Your task to perform on an android device: Open wifi settings Image 0: 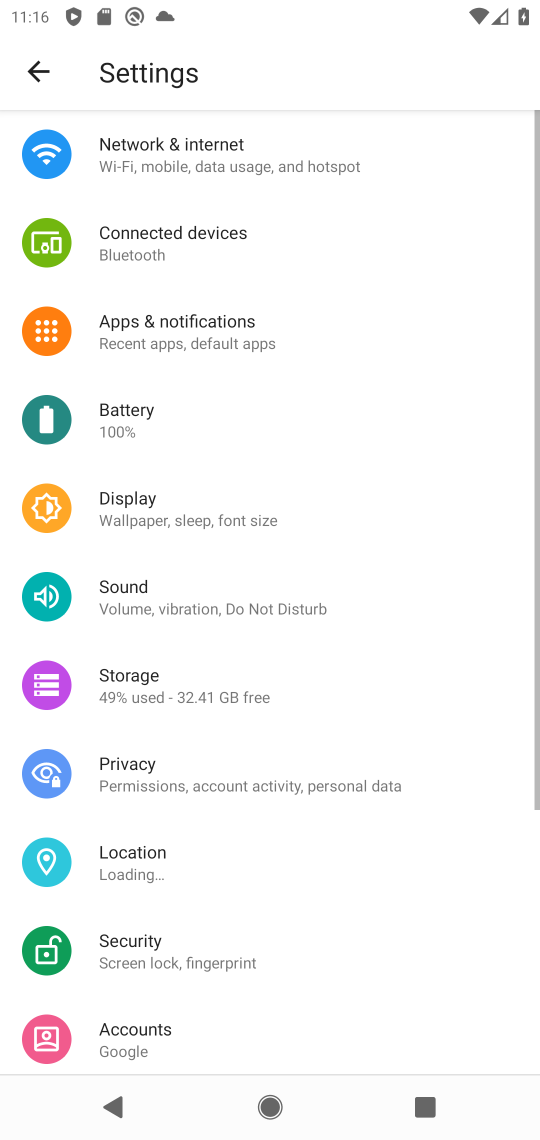
Step 0: press home button
Your task to perform on an android device: Open wifi settings Image 1: 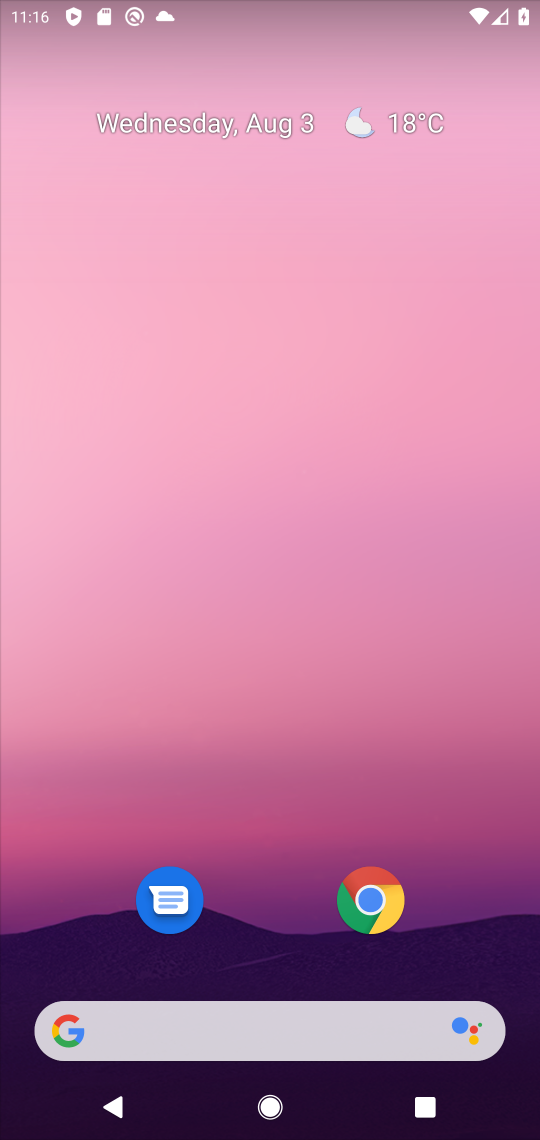
Step 1: drag from (284, 844) to (275, 155)
Your task to perform on an android device: Open wifi settings Image 2: 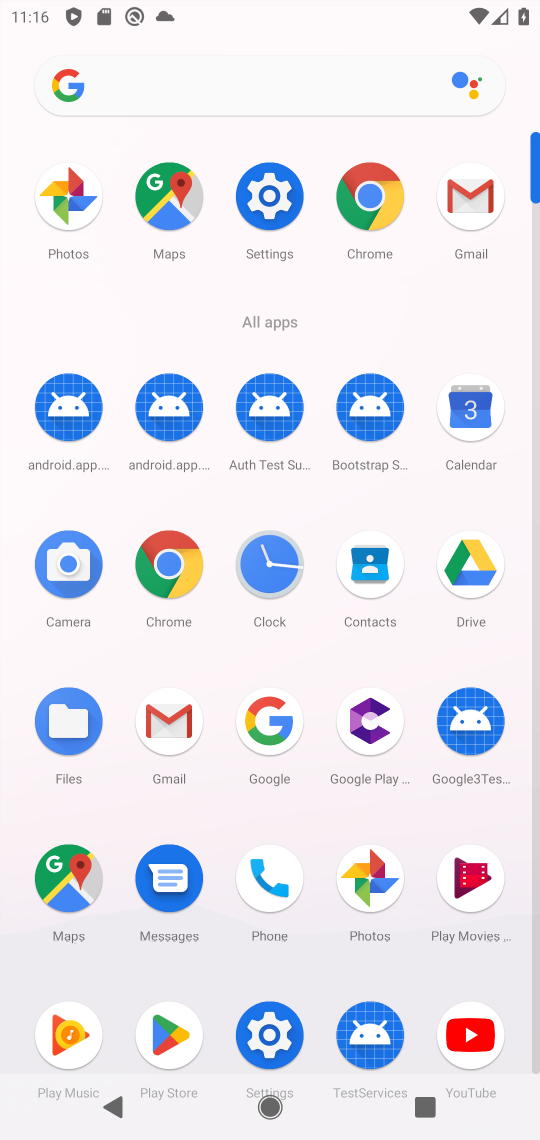
Step 2: click (272, 184)
Your task to perform on an android device: Open wifi settings Image 3: 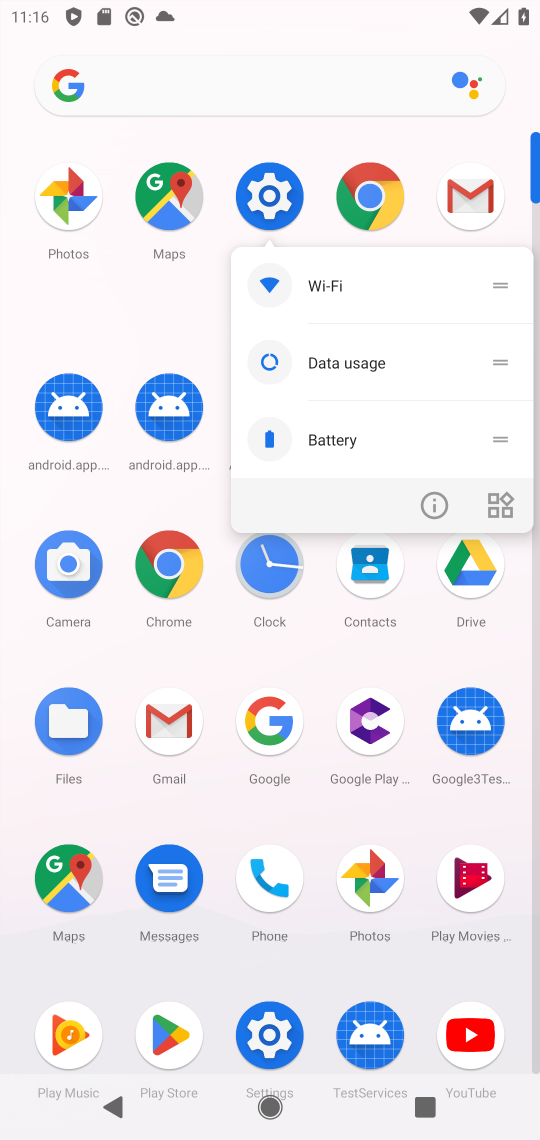
Step 3: click (268, 200)
Your task to perform on an android device: Open wifi settings Image 4: 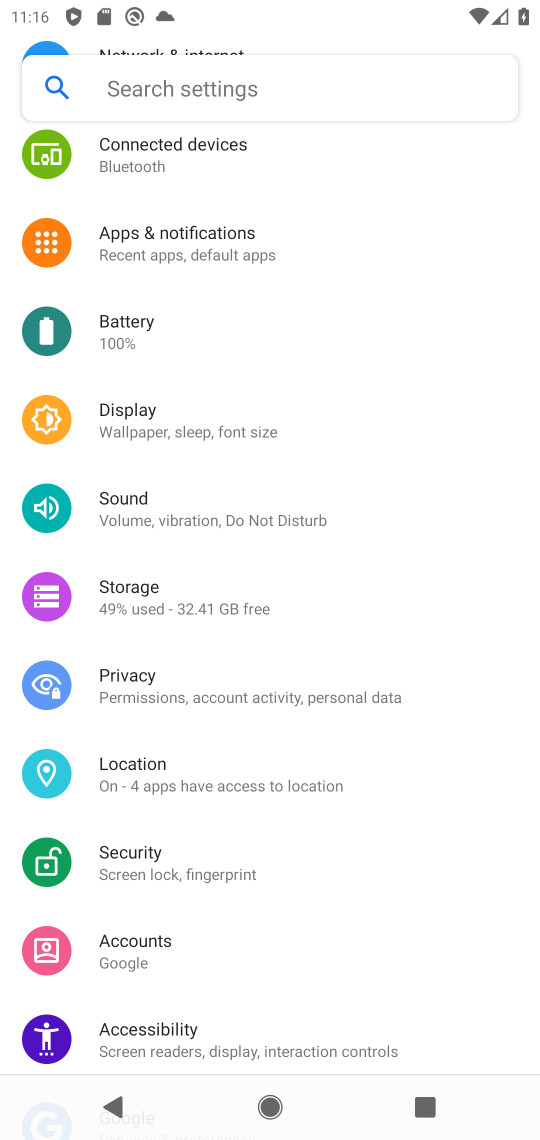
Step 4: drag from (336, 151) to (307, 801)
Your task to perform on an android device: Open wifi settings Image 5: 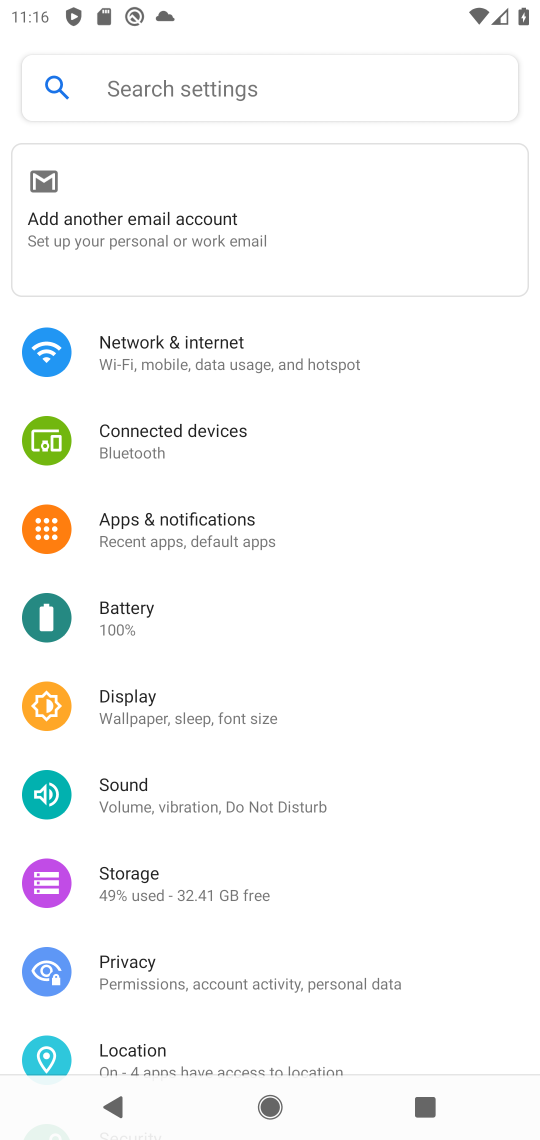
Step 5: click (178, 355)
Your task to perform on an android device: Open wifi settings Image 6: 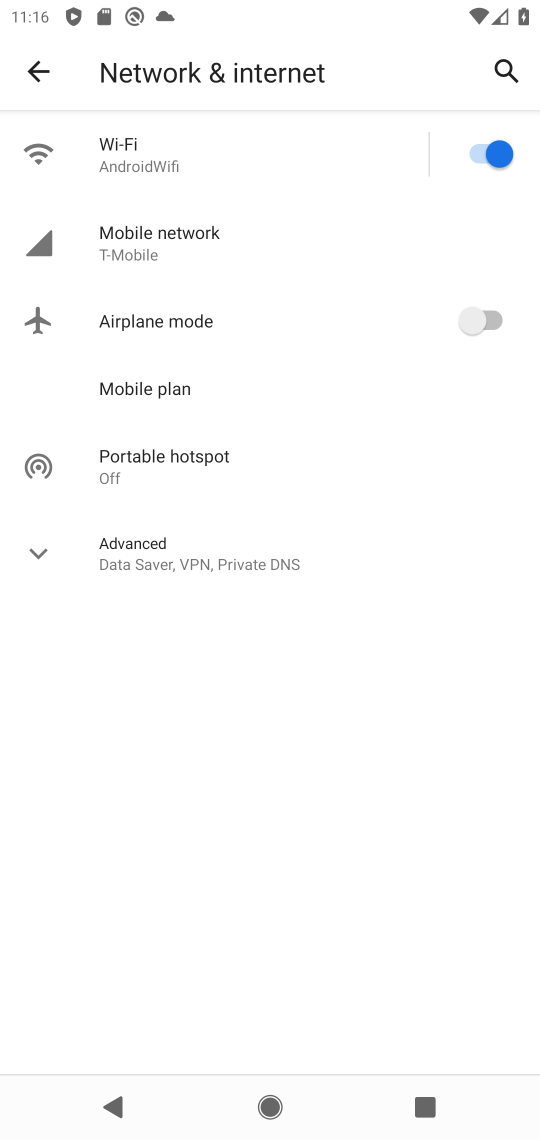
Step 6: task complete